Your task to perform on an android device: What's the weather today? Image 0: 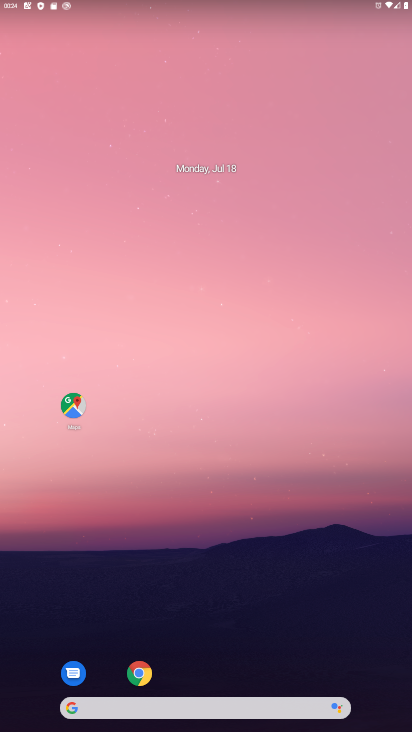
Step 0: drag from (250, 655) to (238, 35)
Your task to perform on an android device: What's the weather today? Image 1: 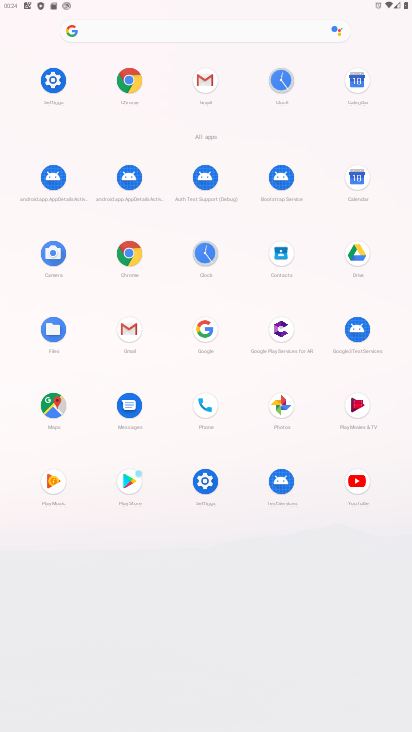
Step 1: click (197, 26)
Your task to perform on an android device: What's the weather today? Image 2: 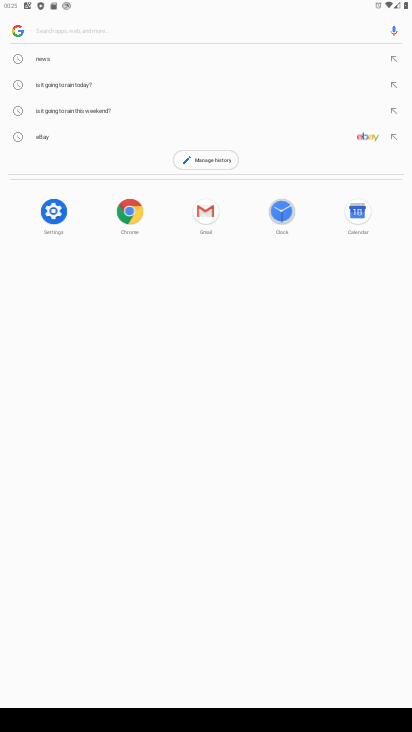
Step 2: type "weather"
Your task to perform on an android device: What's the weather today? Image 3: 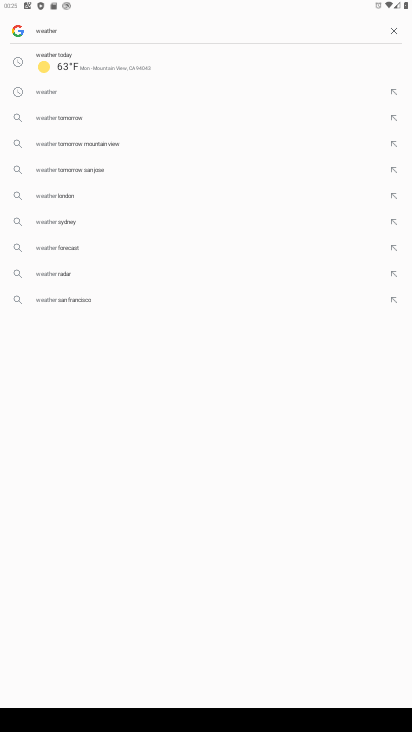
Step 3: click (128, 93)
Your task to perform on an android device: What's the weather today? Image 4: 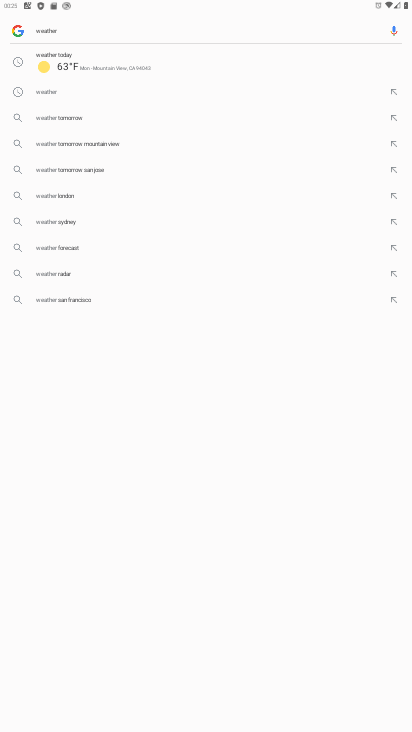
Step 4: task complete